Your task to perform on an android device: toggle data saver in the chrome app Image 0: 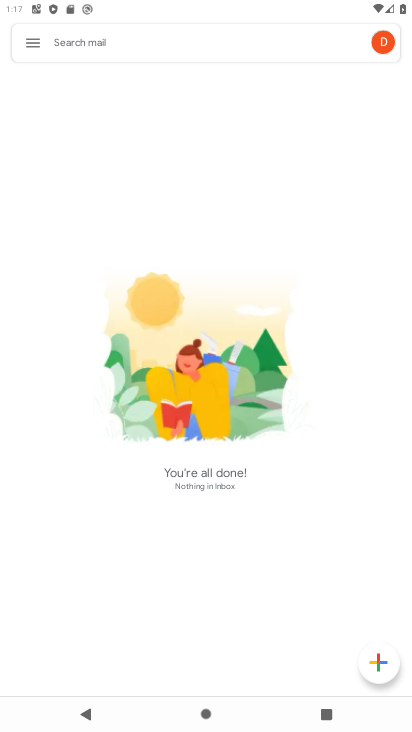
Step 0: press home button
Your task to perform on an android device: toggle data saver in the chrome app Image 1: 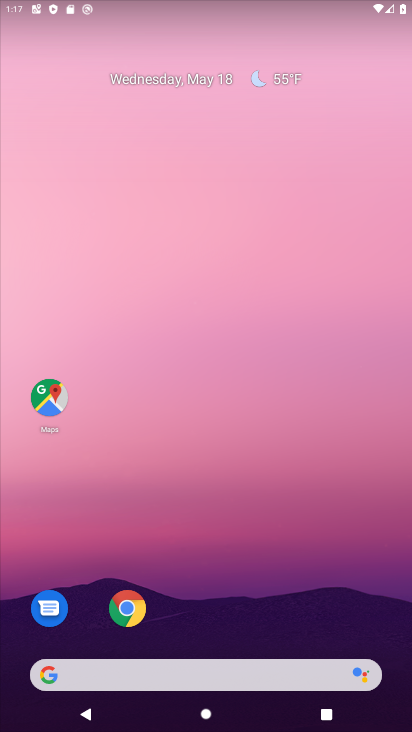
Step 1: click (296, 595)
Your task to perform on an android device: toggle data saver in the chrome app Image 2: 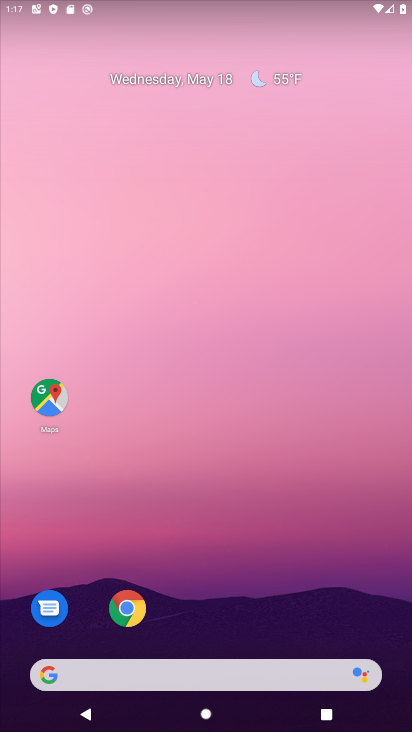
Step 2: click (128, 607)
Your task to perform on an android device: toggle data saver in the chrome app Image 3: 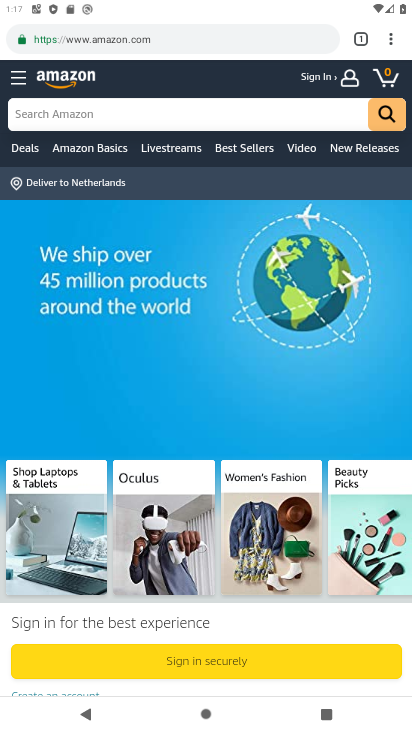
Step 3: drag from (394, 27) to (263, 457)
Your task to perform on an android device: toggle data saver in the chrome app Image 4: 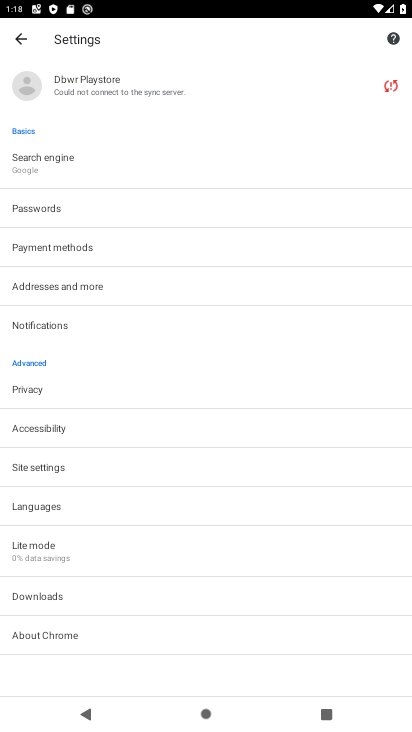
Step 4: click (38, 559)
Your task to perform on an android device: toggle data saver in the chrome app Image 5: 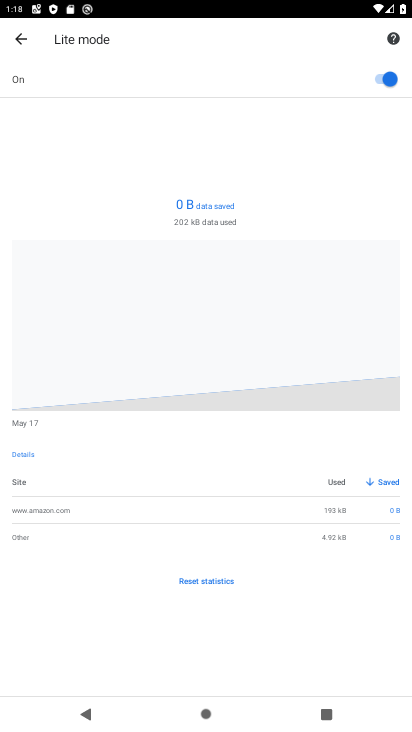
Step 5: click (384, 79)
Your task to perform on an android device: toggle data saver in the chrome app Image 6: 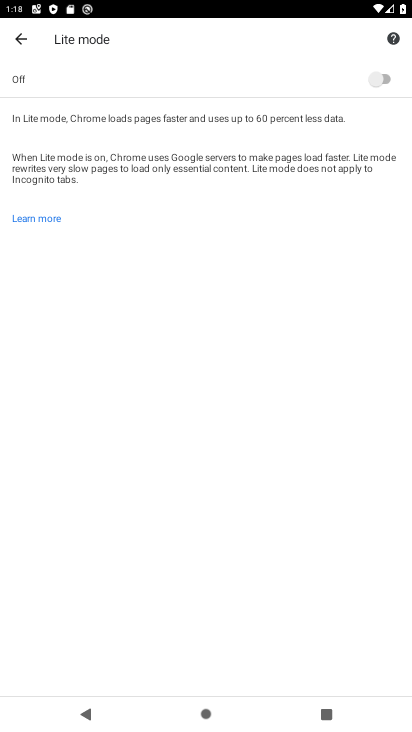
Step 6: task complete